Your task to perform on an android device: make emails show in primary in the gmail app Image 0: 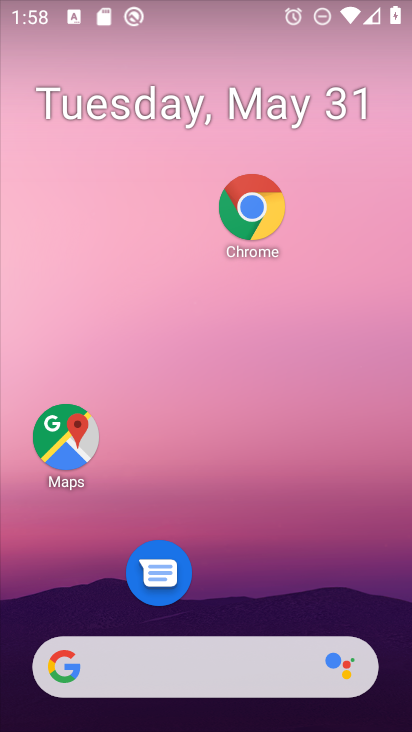
Step 0: drag from (260, 603) to (196, 0)
Your task to perform on an android device: make emails show in primary in the gmail app Image 1: 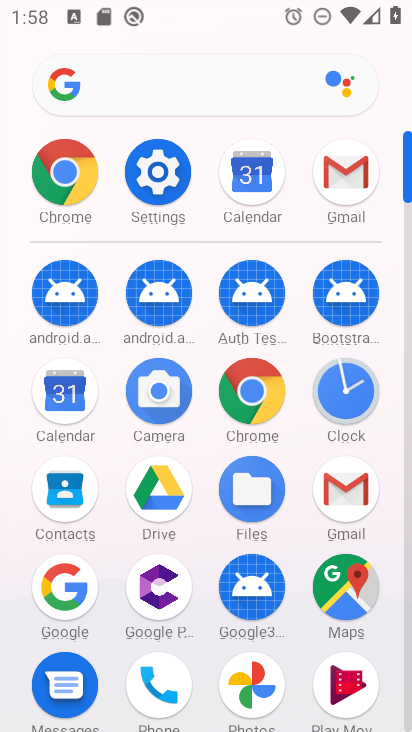
Step 1: click (360, 513)
Your task to perform on an android device: make emails show in primary in the gmail app Image 2: 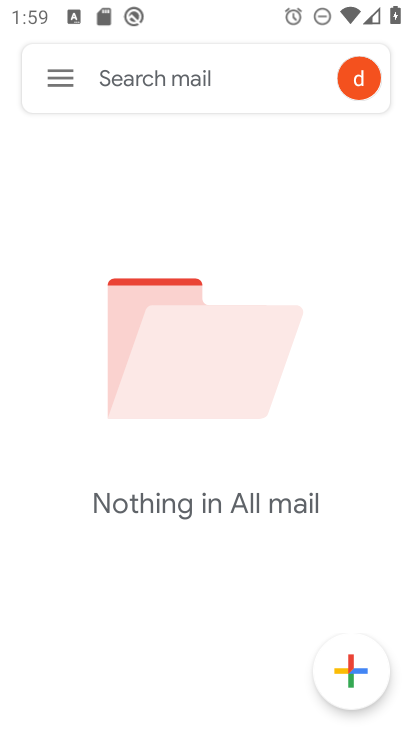
Step 2: click (52, 85)
Your task to perform on an android device: make emails show in primary in the gmail app Image 3: 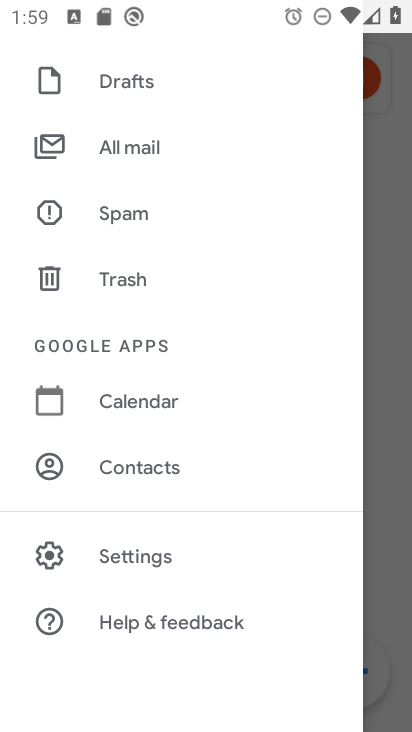
Step 3: click (149, 548)
Your task to perform on an android device: make emails show in primary in the gmail app Image 4: 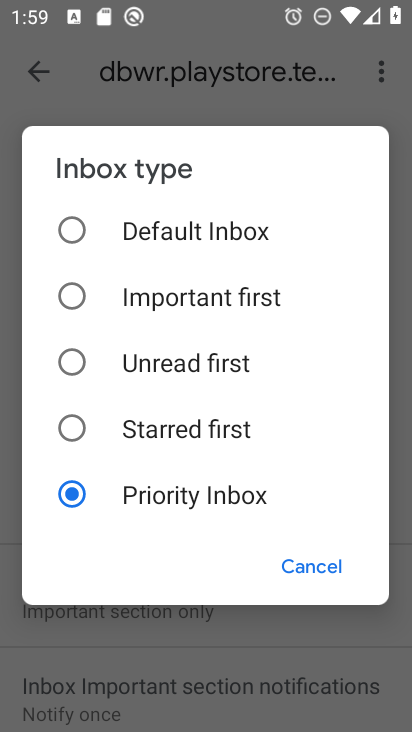
Step 4: task complete